Your task to perform on an android device: open the mobile data screen to see how much data has been used Image 0: 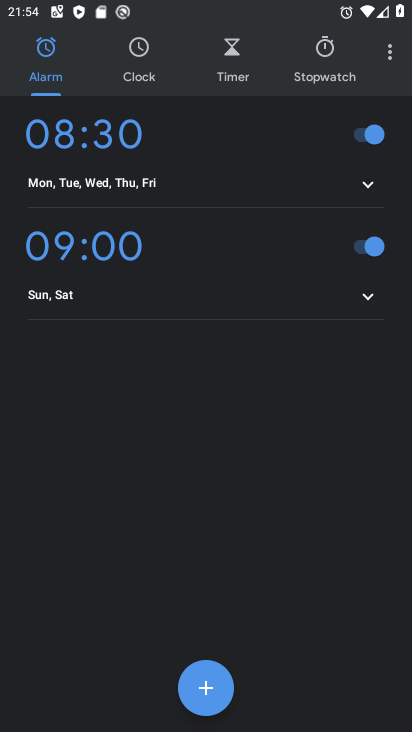
Step 0: press home button
Your task to perform on an android device: open the mobile data screen to see how much data has been used Image 1: 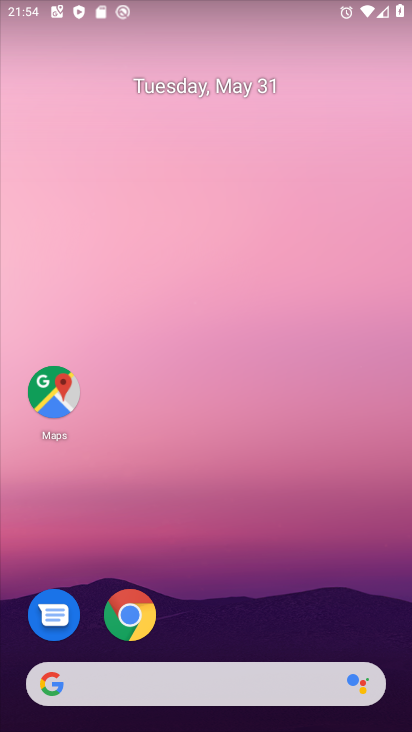
Step 1: drag from (219, 614) to (223, 176)
Your task to perform on an android device: open the mobile data screen to see how much data has been used Image 2: 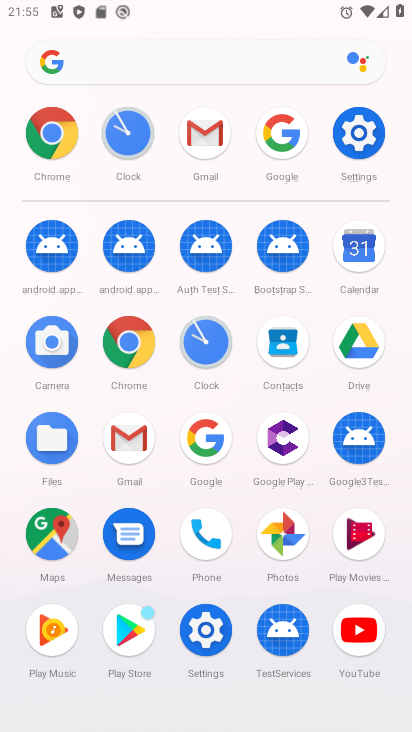
Step 2: click (353, 146)
Your task to perform on an android device: open the mobile data screen to see how much data has been used Image 3: 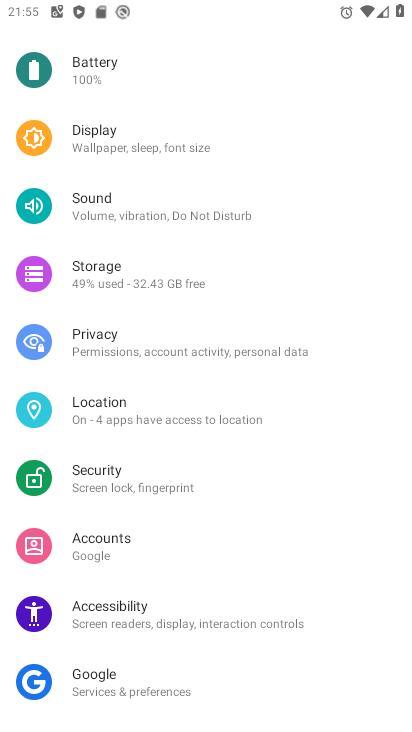
Step 3: drag from (160, 154) to (176, 504)
Your task to perform on an android device: open the mobile data screen to see how much data has been used Image 4: 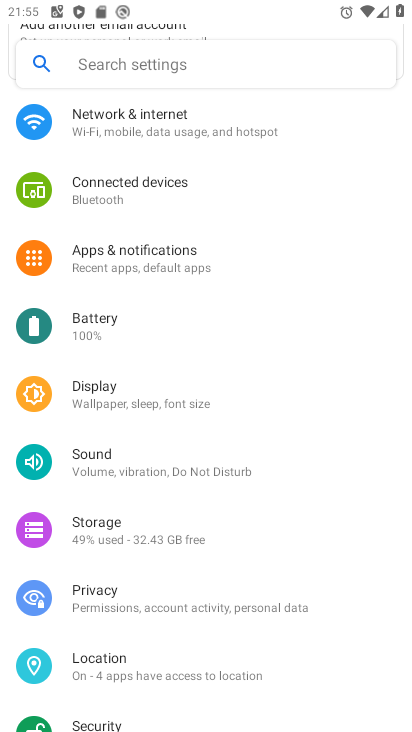
Step 4: click (148, 112)
Your task to perform on an android device: open the mobile data screen to see how much data has been used Image 5: 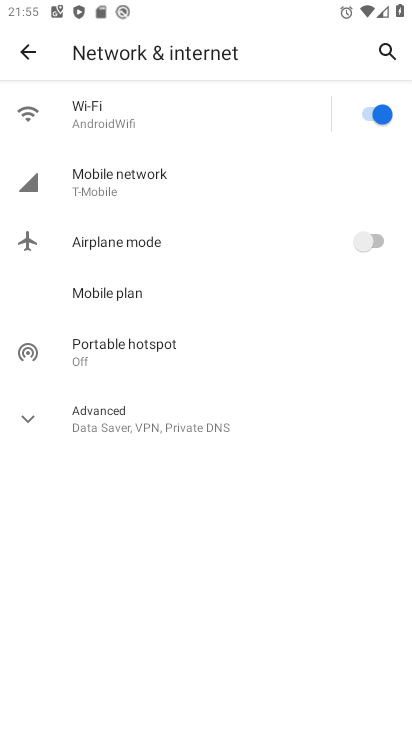
Step 5: click (138, 200)
Your task to perform on an android device: open the mobile data screen to see how much data has been used Image 6: 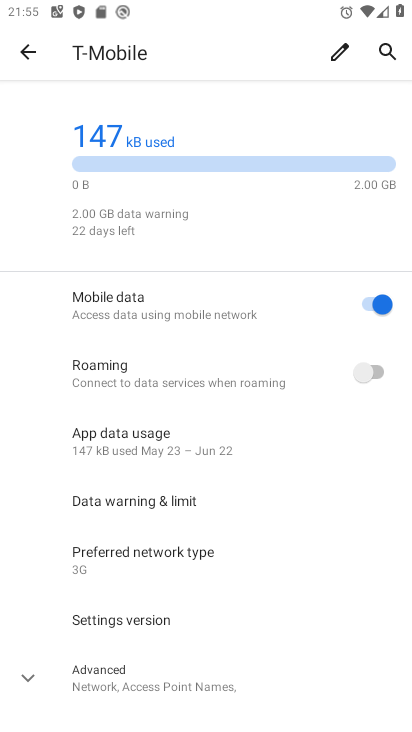
Step 6: click (171, 432)
Your task to perform on an android device: open the mobile data screen to see how much data has been used Image 7: 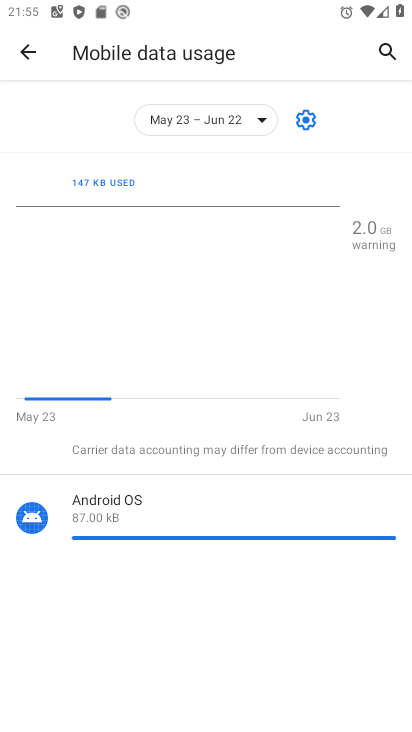
Step 7: task complete